Your task to perform on an android device: Open settings Image 0: 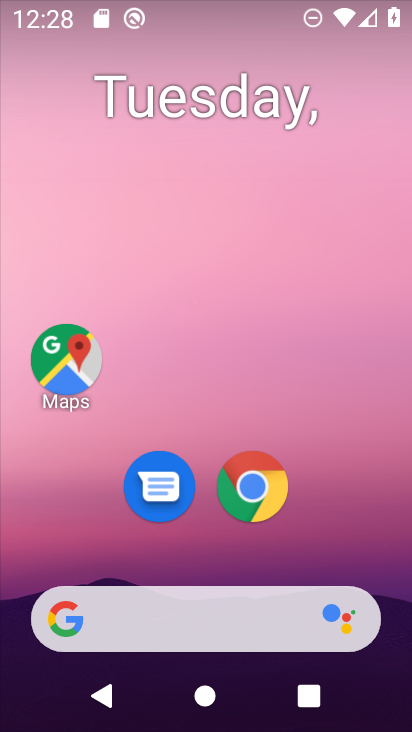
Step 0: drag from (214, 578) to (247, 156)
Your task to perform on an android device: Open settings Image 1: 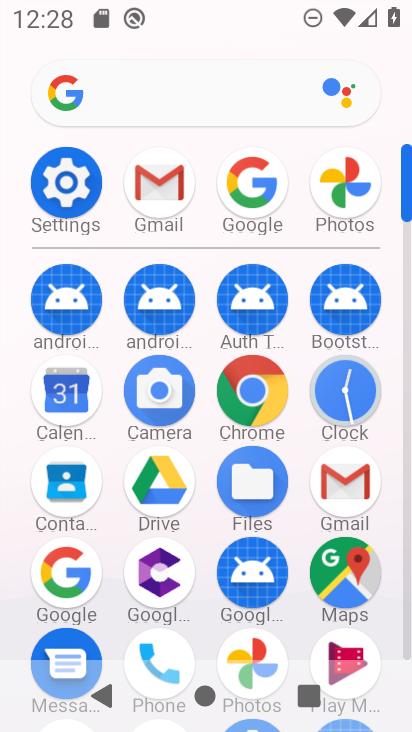
Step 1: drag from (217, 265) to (190, 21)
Your task to perform on an android device: Open settings Image 2: 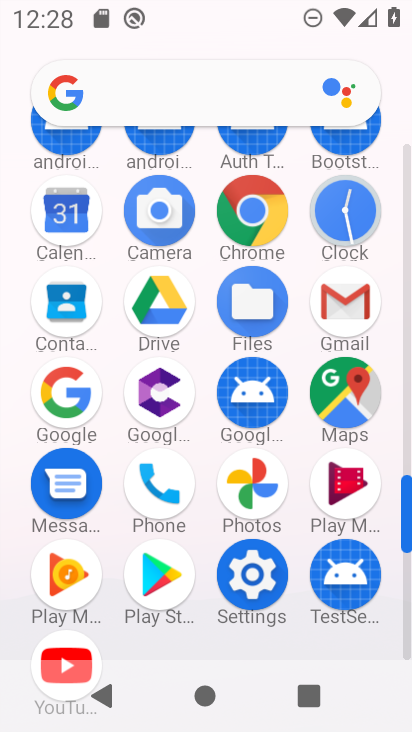
Step 2: click (241, 579)
Your task to perform on an android device: Open settings Image 3: 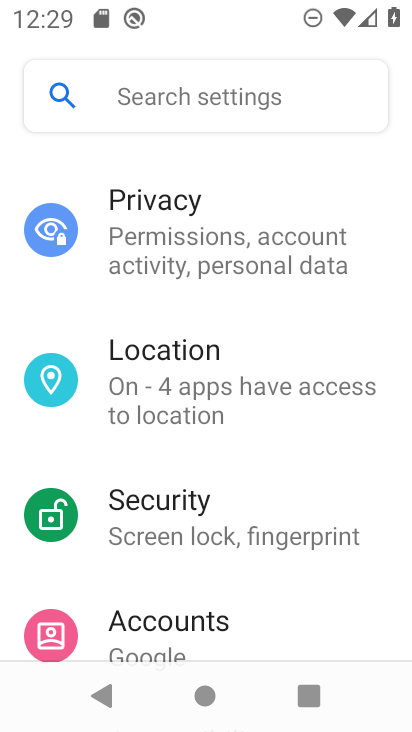
Step 3: task complete